Your task to perform on an android device: toggle airplane mode Image 0: 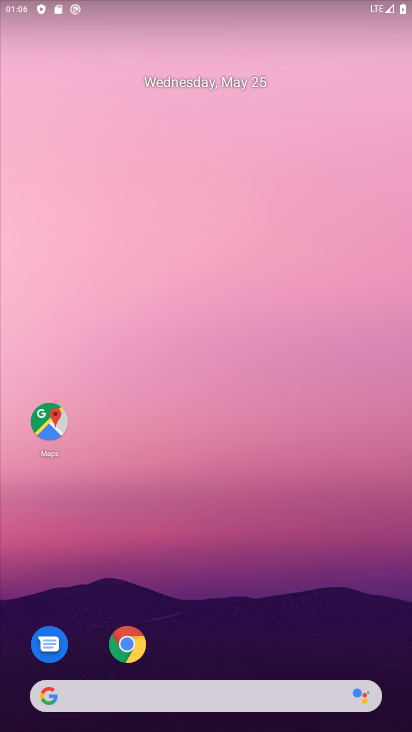
Step 0: drag from (336, 531) to (273, 205)
Your task to perform on an android device: toggle airplane mode Image 1: 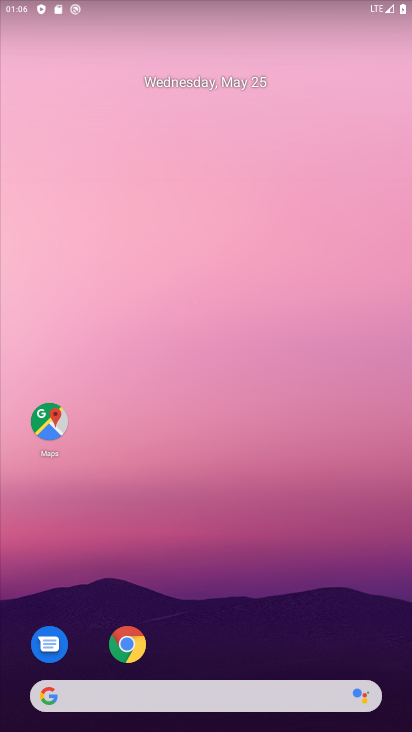
Step 1: drag from (241, 553) to (261, 13)
Your task to perform on an android device: toggle airplane mode Image 2: 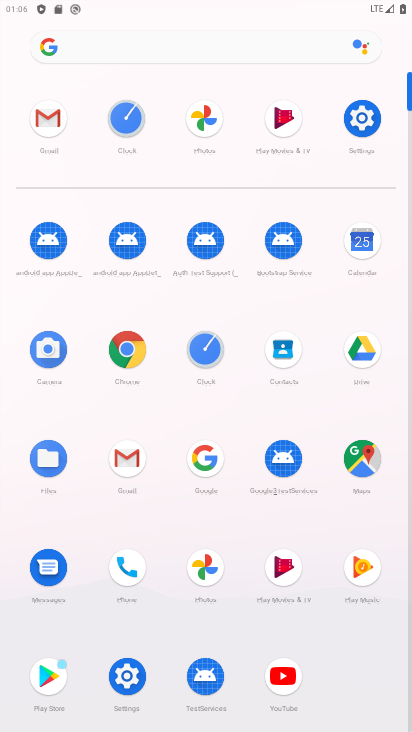
Step 2: click (366, 119)
Your task to perform on an android device: toggle airplane mode Image 3: 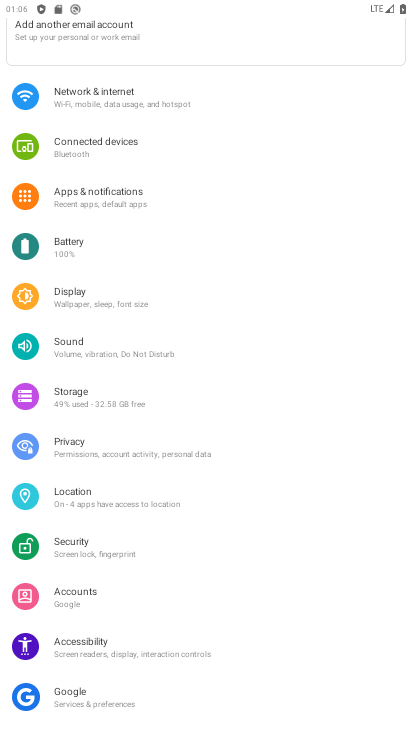
Step 3: click (101, 97)
Your task to perform on an android device: toggle airplane mode Image 4: 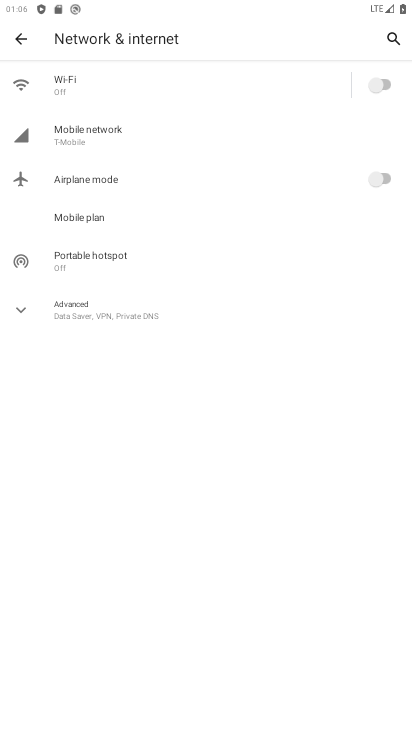
Step 4: click (383, 175)
Your task to perform on an android device: toggle airplane mode Image 5: 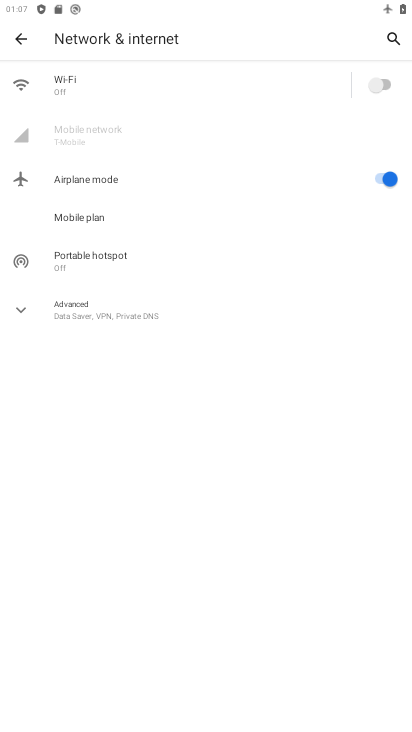
Step 5: task complete